Your task to perform on an android device: Open the phone app and click the voicemail tab. Image 0: 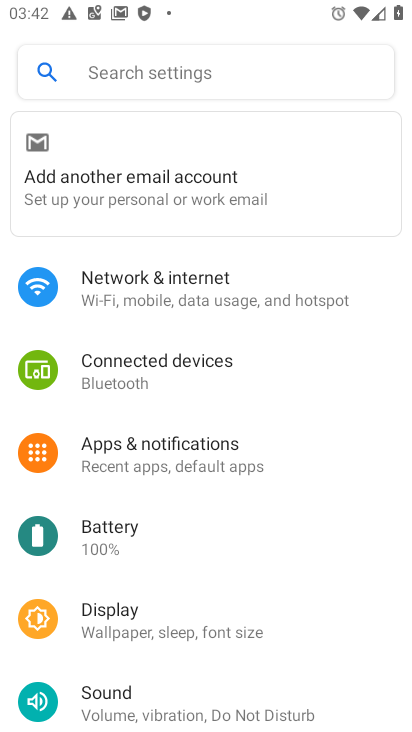
Step 0: press home button
Your task to perform on an android device: Open the phone app and click the voicemail tab. Image 1: 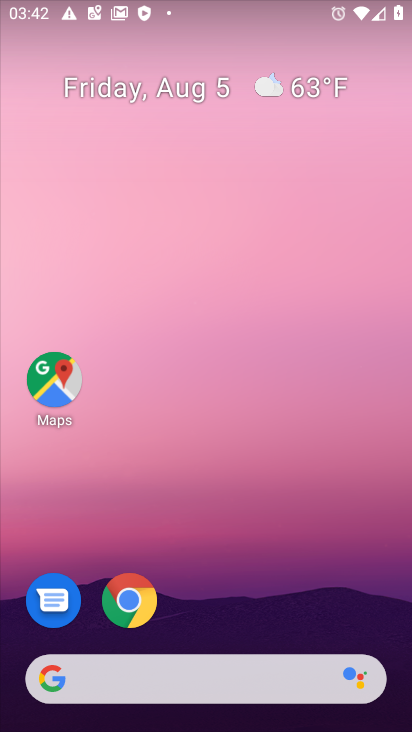
Step 1: drag from (187, 681) to (283, 114)
Your task to perform on an android device: Open the phone app and click the voicemail tab. Image 2: 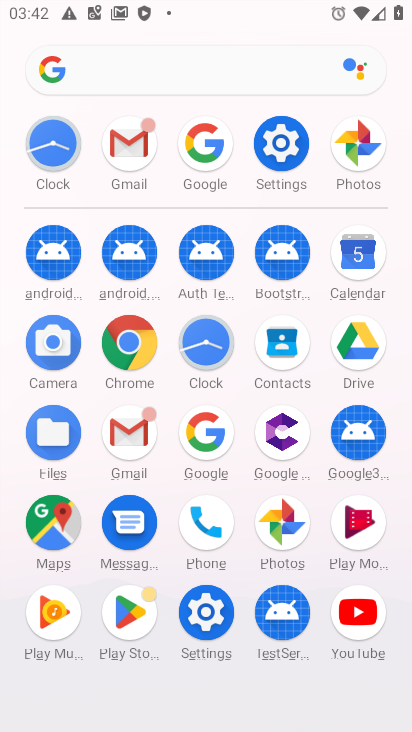
Step 2: click (202, 526)
Your task to perform on an android device: Open the phone app and click the voicemail tab. Image 3: 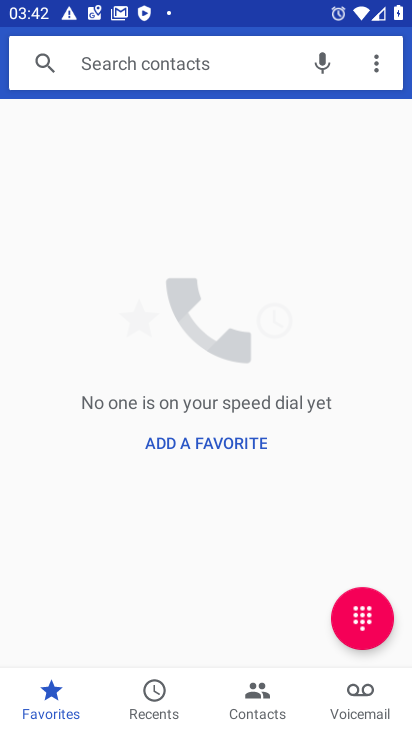
Step 3: click (361, 688)
Your task to perform on an android device: Open the phone app and click the voicemail tab. Image 4: 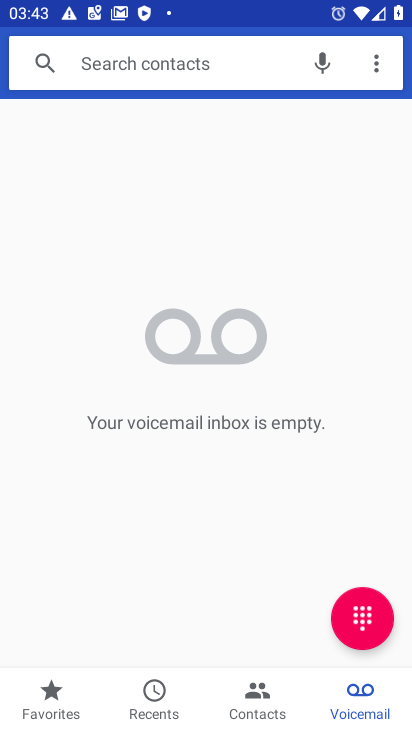
Step 4: task complete